Your task to perform on an android device: Go to sound settings Image 0: 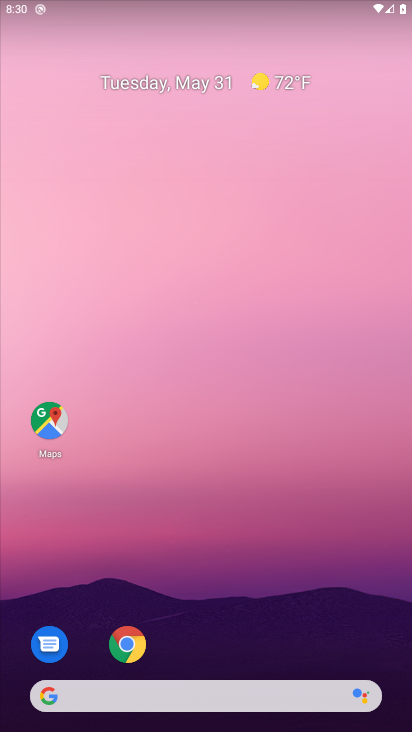
Step 0: press home button
Your task to perform on an android device: Go to sound settings Image 1: 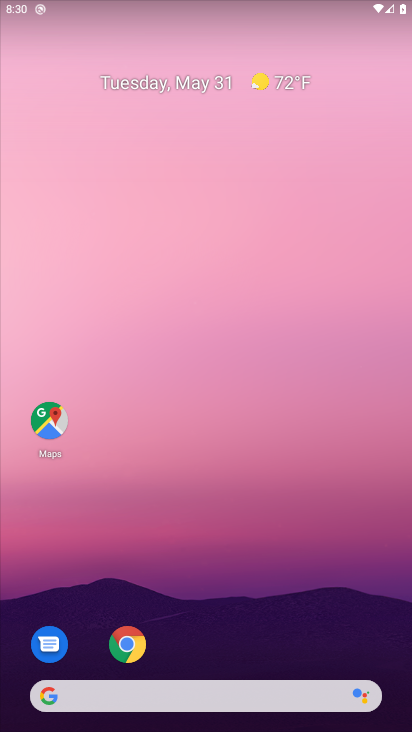
Step 1: press home button
Your task to perform on an android device: Go to sound settings Image 2: 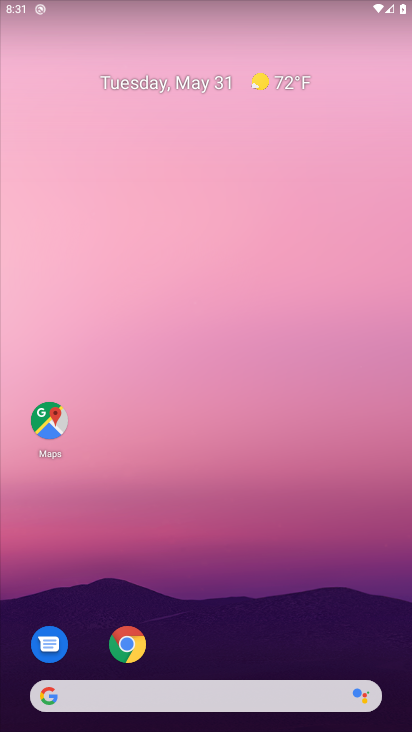
Step 2: drag from (221, 649) to (251, 47)
Your task to perform on an android device: Go to sound settings Image 3: 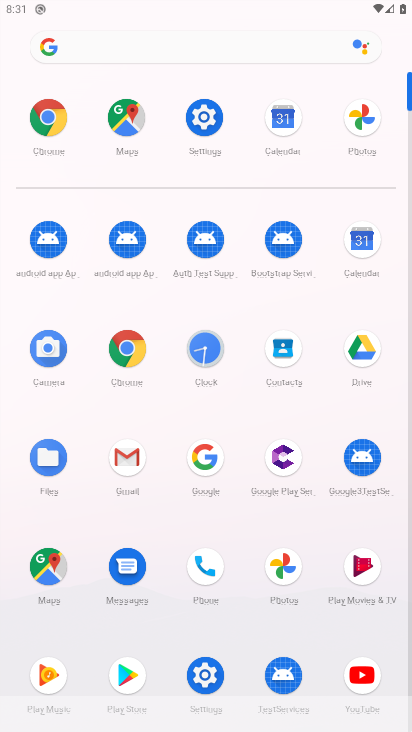
Step 3: click (206, 118)
Your task to perform on an android device: Go to sound settings Image 4: 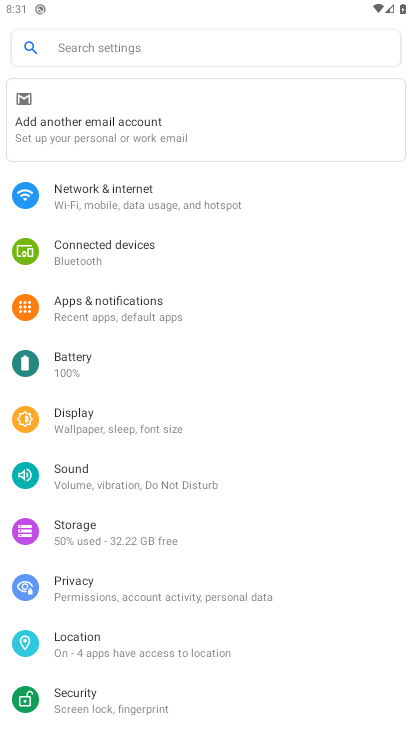
Step 4: click (128, 467)
Your task to perform on an android device: Go to sound settings Image 5: 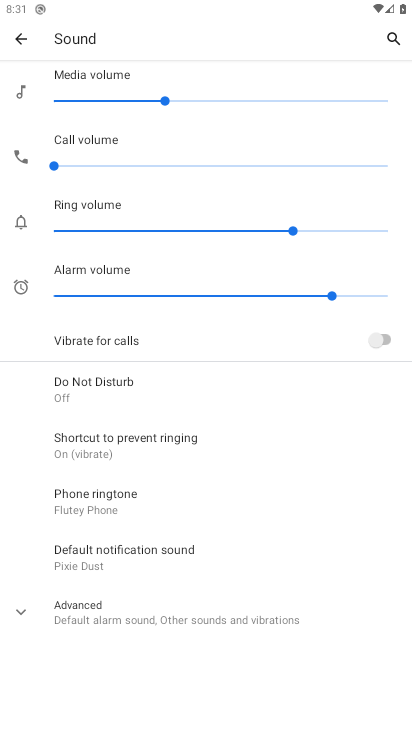
Step 5: click (112, 615)
Your task to perform on an android device: Go to sound settings Image 6: 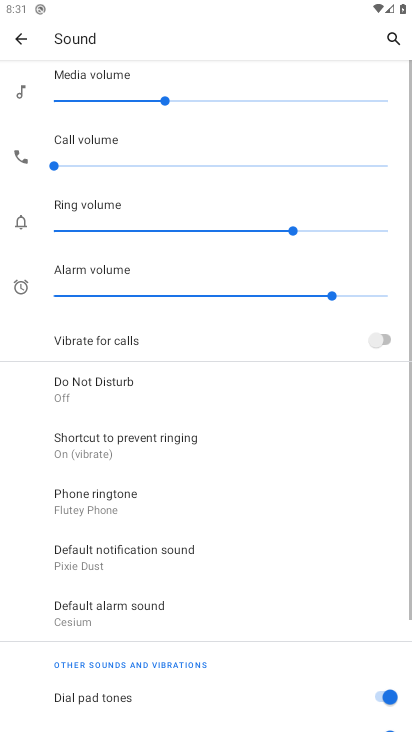
Step 6: task complete